Your task to perform on an android device: toggle notifications settings in the gmail app Image 0: 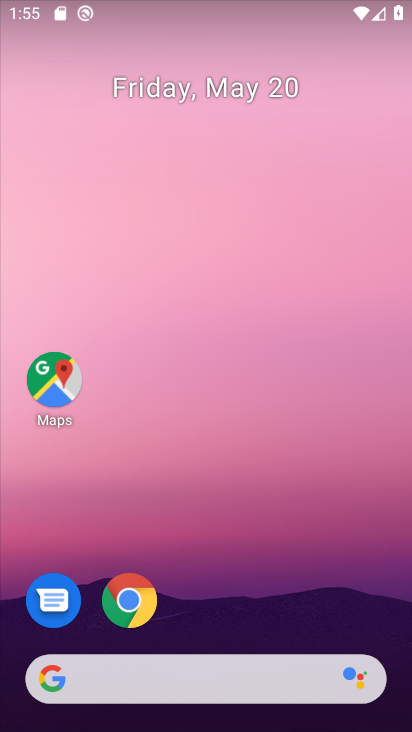
Step 0: drag from (154, 234) to (127, 80)
Your task to perform on an android device: toggle notifications settings in the gmail app Image 1: 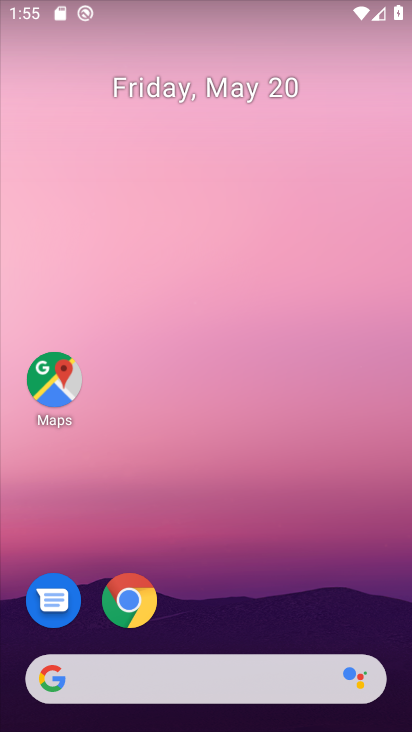
Step 1: drag from (283, 526) to (218, 5)
Your task to perform on an android device: toggle notifications settings in the gmail app Image 2: 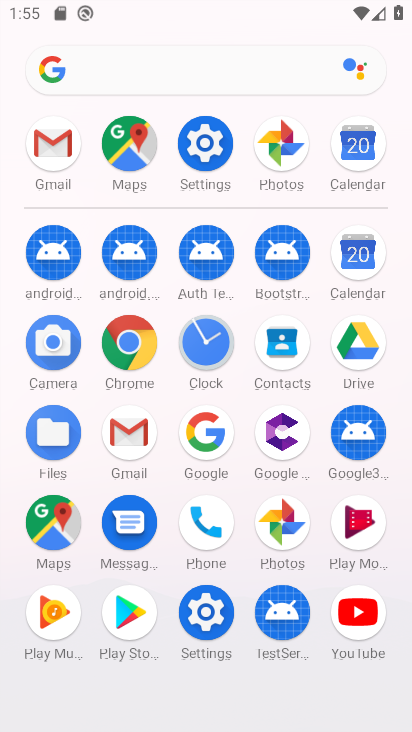
Step 2: click (52, 151)
Your task to perform on an android device: toggle notifications settings in the gmail app Image 3: 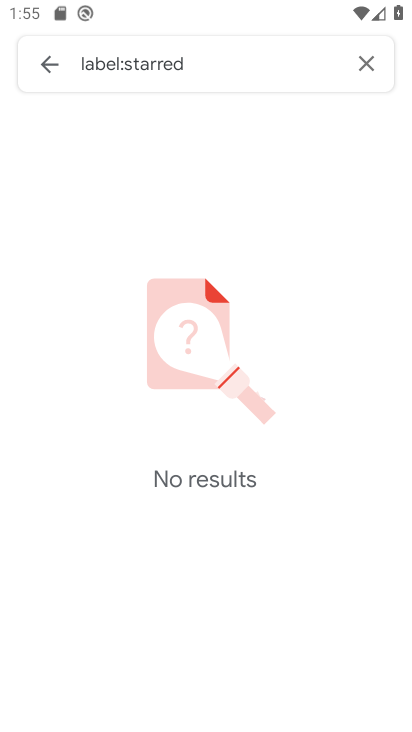
Step 3: click (362, 63)
Your task to perform on an android device: toggle notifications settings in the gmail app Image 4: 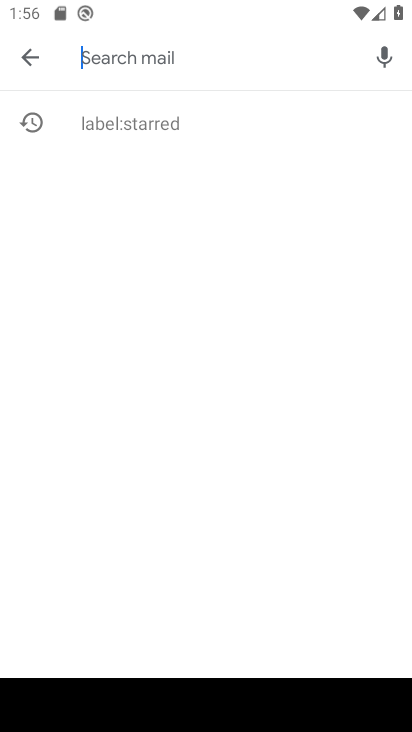
Step 4: click (32, 59)
Your task to perform on an android device: toggle notifications settings in the gmail app Image 5: 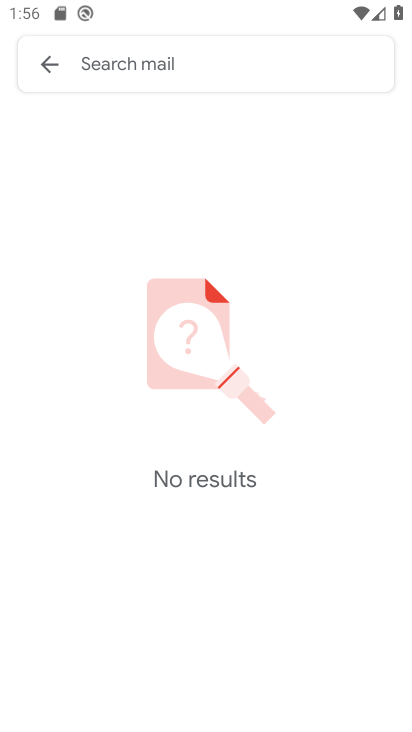
Step 5: click (46, 62)
Your task to perform on an android device: toggle notifications settings in the gmail app Image 6: 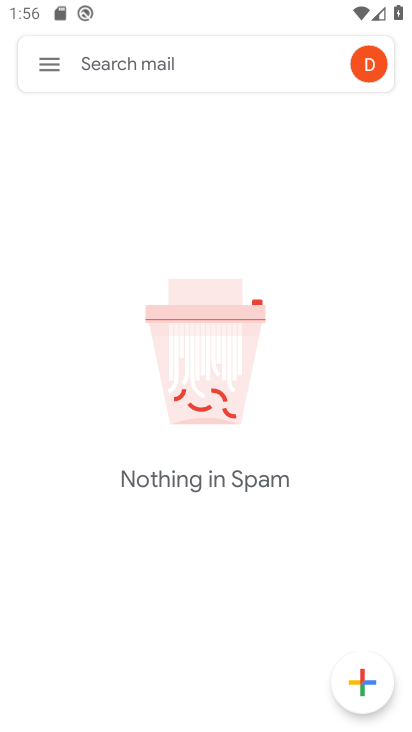
Step 6: click (46, 57)
Your task to perform on an android device: toggle notifications settings in the gmail app Image 7: 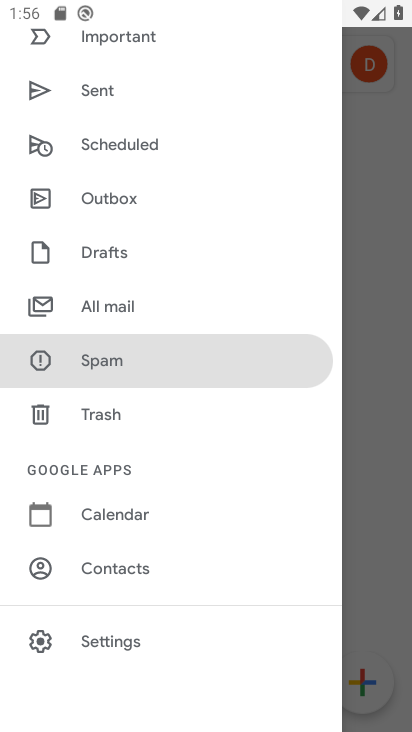
Step 7: click (168, 640)
Your task to perform on an android device: toggle notifications settings in the gmail app Image 8: 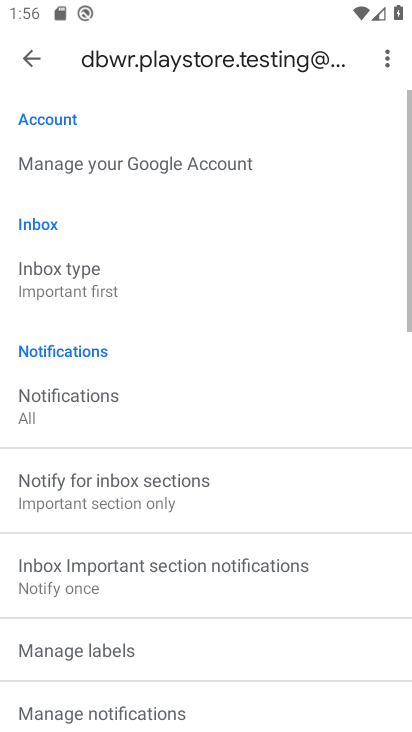
Step 8: click (196, 402)
Your task to perform on an android device: toggle notifications settings in the gmail app Image 9: 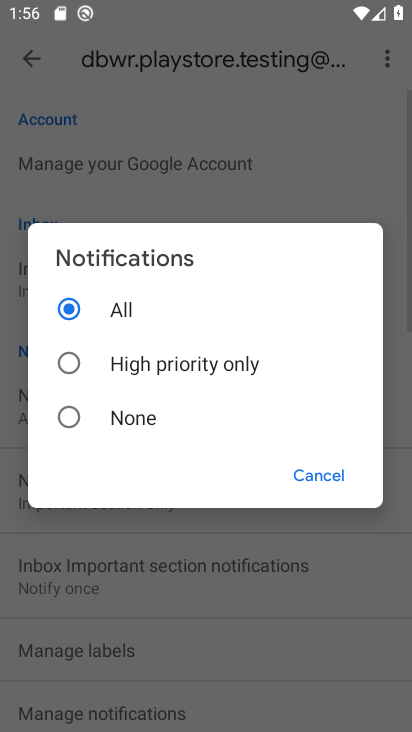
Step 9: click (136, 416)
Your task to perform on an android device: toggle notifications settings in the gmail app Image 10: 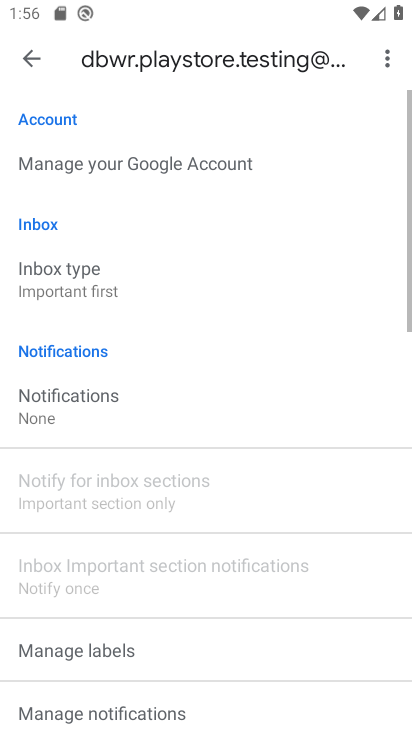
Step 10: task complete